Your task to perform on an android device: Go to network settings Image 0: 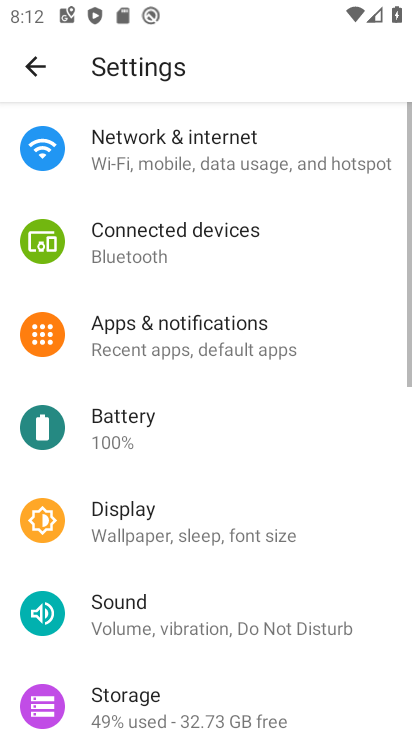
Step 0: click (234, 146)
Your task to perform on an android device: Go to network settings Image 1: 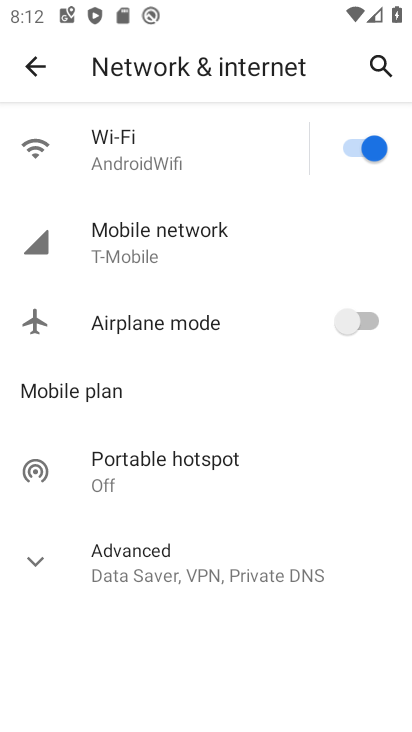
Step 1: task complete